Your task to perform on an android device: Is it going to rain tomorrow? Image 0: 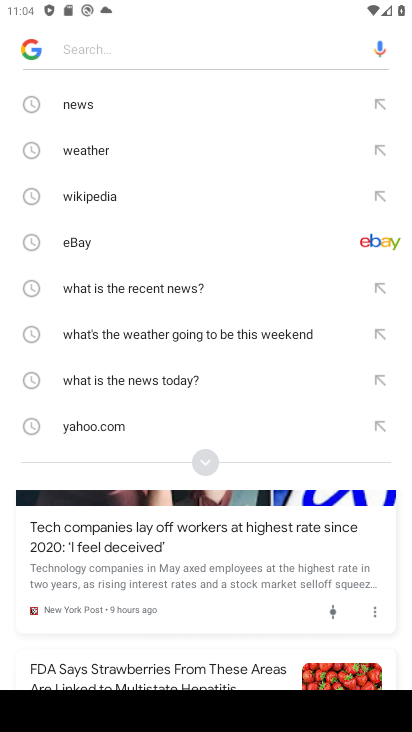
Step 0: click (158, 47)
Your task to perform on an android device: Is it going to rain tomorrow? Image 1: 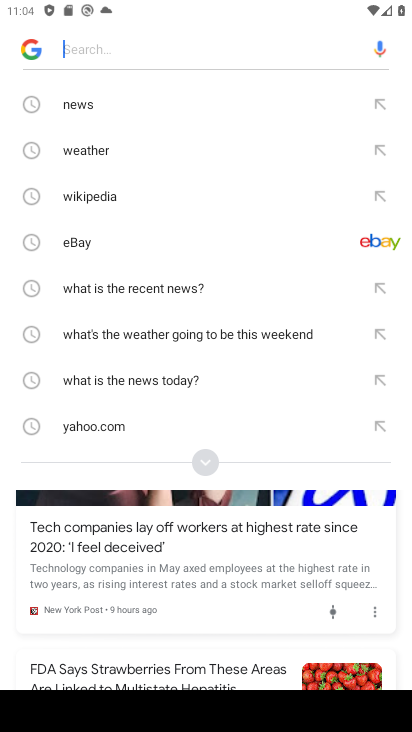
Step 1: type "Is it going to rain tomorrow?"
Your task to perform on an android device: Is it going to rain tomorrow? Image 2: 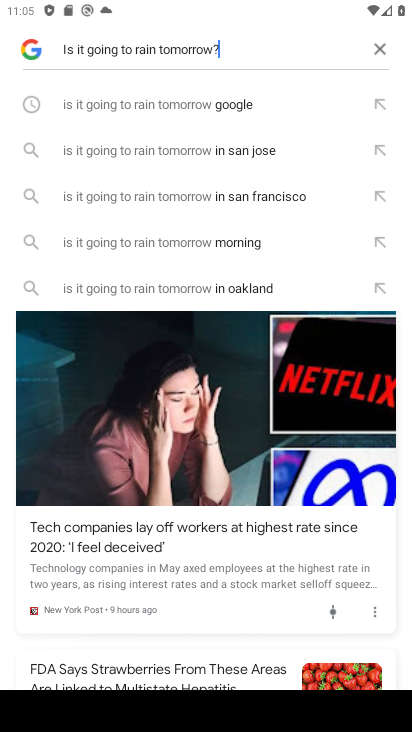
Step 2: click (177, 114)
Your task to perform on an android device: Is it going to rain tomorrow? Image 3: 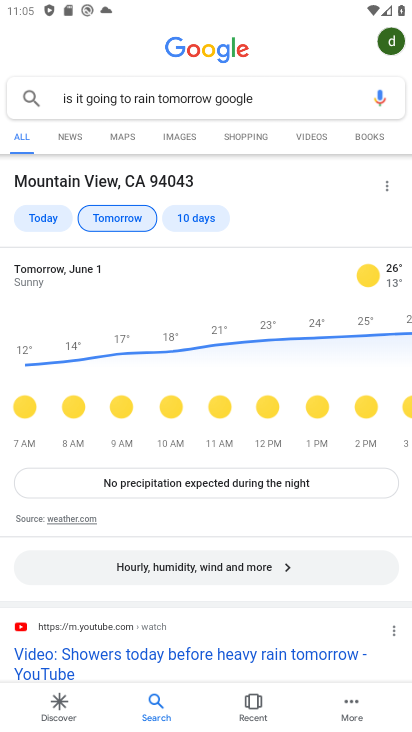
Step 3: task complete